Your task to perform on an android device: Open Google Chrome and click the shortcut for Amazon.com Image 0: 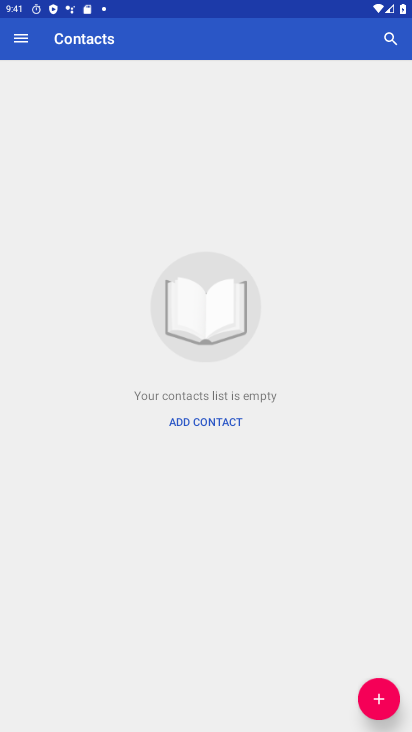
Step 0: drag from (360, 727) to (223, 308)
Your task to perform on an android device: Open Google Chrome and click the shortcut for Amazon.com Image 1: 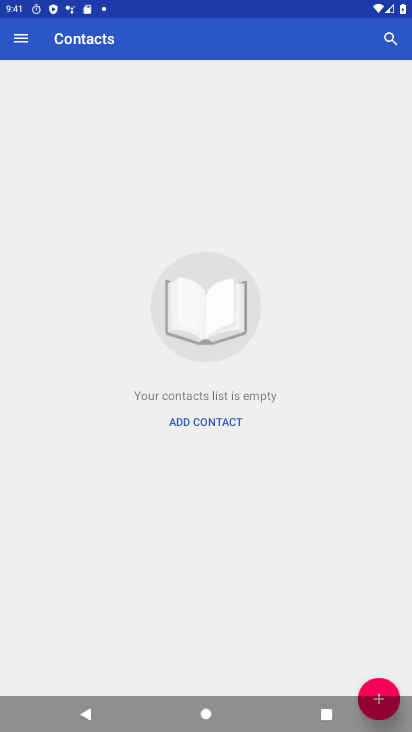
Step 1: press back button
Your task to perform on an android device: Open Google Chrome and click the shortcut for Amazon.com Image 2: 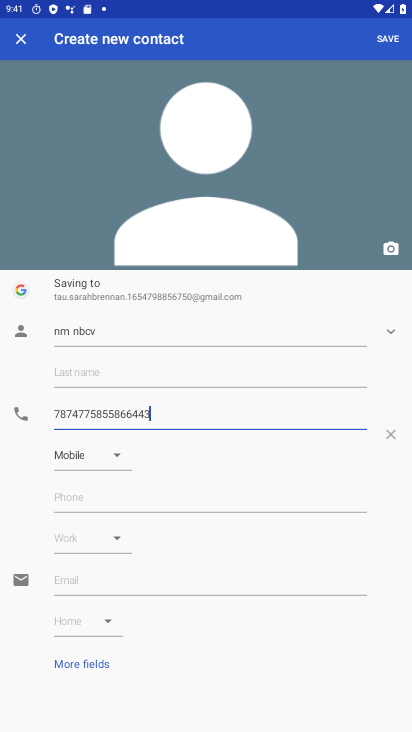
Step 2: press home button
Your task to perform on an android device: Open Google Chrome and click the shortcut for Amazon.com Image 3: 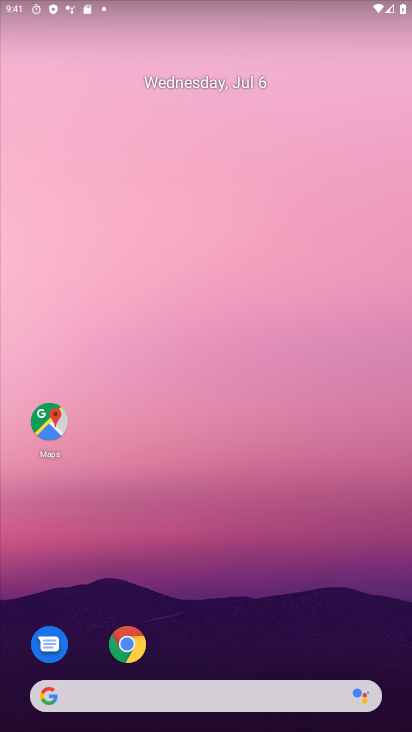
Step 3: click (213, 53)
Your task to perform on an android device: Open Google Chrome and click the shortcut for Amazon.com Image 4: 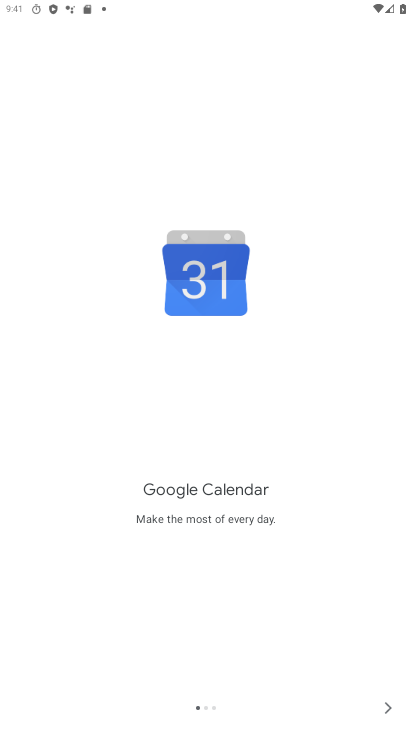
Step 4: press back button
Your task to perform on an android device: Open Google Chrome and click the shortcut for Amazon.com Image 5: 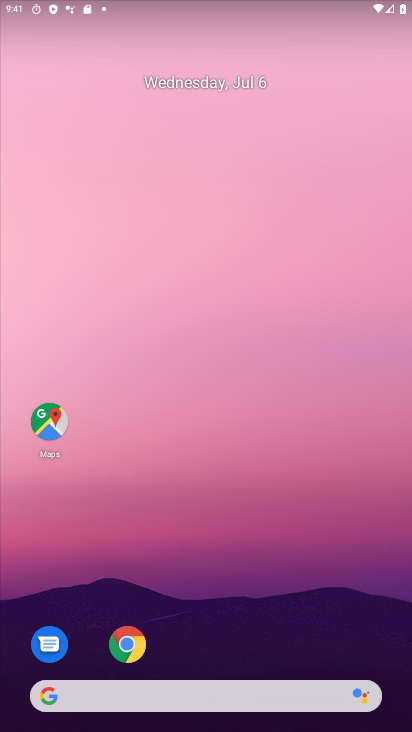
Step 5: drag from (257, 700) to (141, 153)
Your task to perform on an android device: Open Google Chrome and click the shortcut for Amazon.com Image 6: 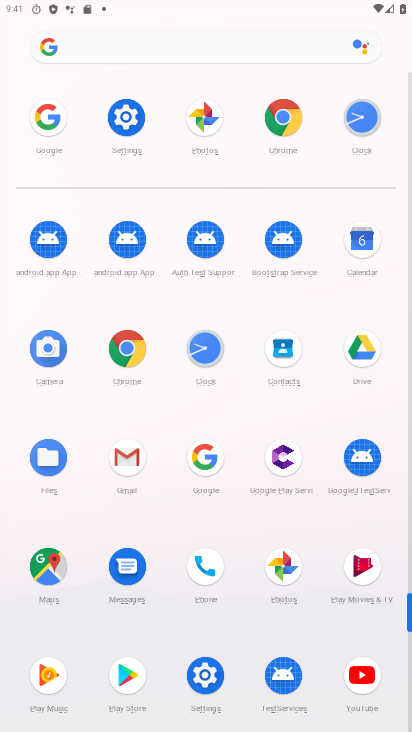
Step 6: click (122, 347)
Your task to perform on an android device: Open Google Chrome and click the shortcut for Amazon.com Image 7: 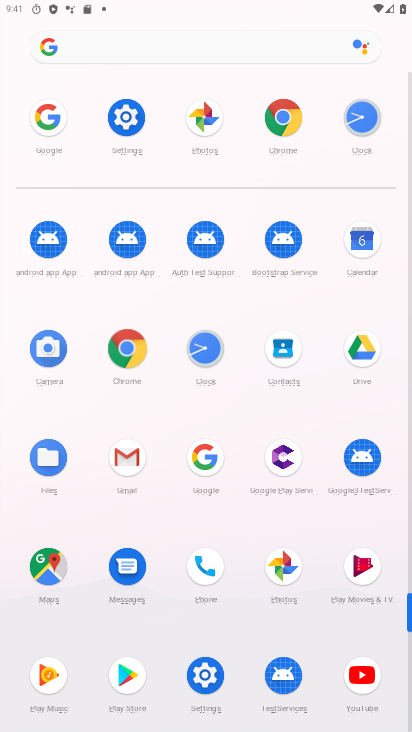
Step 7: click (123, 345)
Your task to perform on an android device: Open Google Chrome and click the shortcut for Amazon.com Image 8: 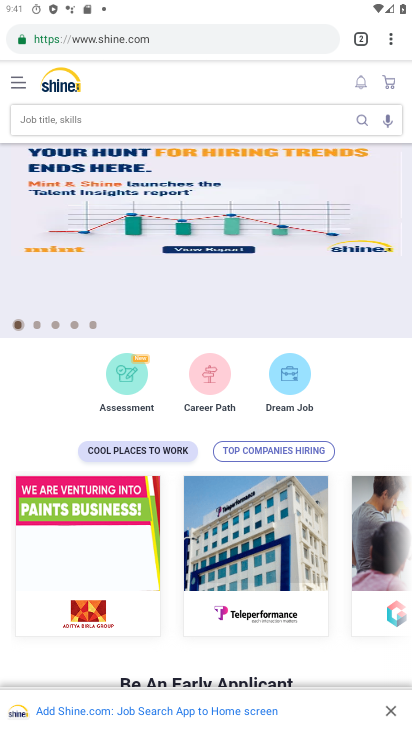
Step 8: drag from (386, 44) to (155, 71)
Your task to perform on an android device: Open Google Chrome and click the shortcut for Amazon.com Image 9: 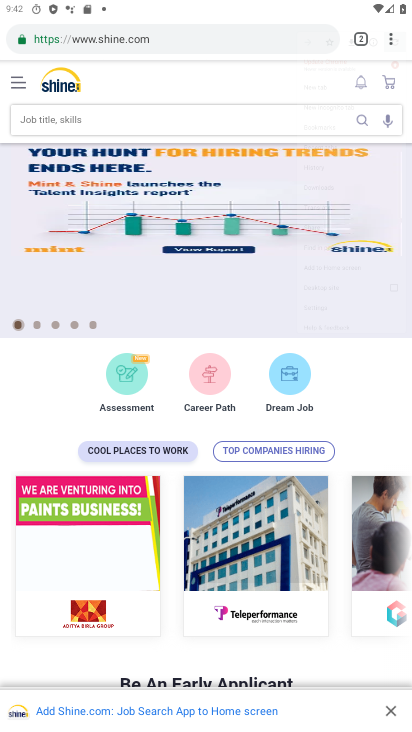
Step 9: click (156, 80)
Your task to perform on an android device: Open Google Chrome and click the shortcut for Amazon.com Image 10: 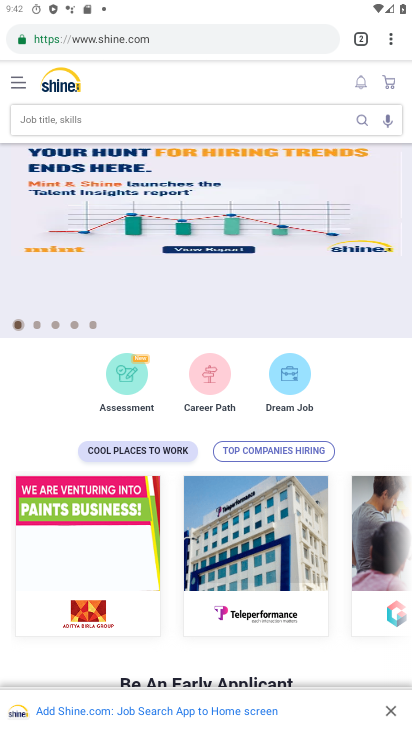
Step 10: click (160, 81)
Your task to perform on an android device: Open Google Chrome and click the shortcut for Amazon.com Image 11: 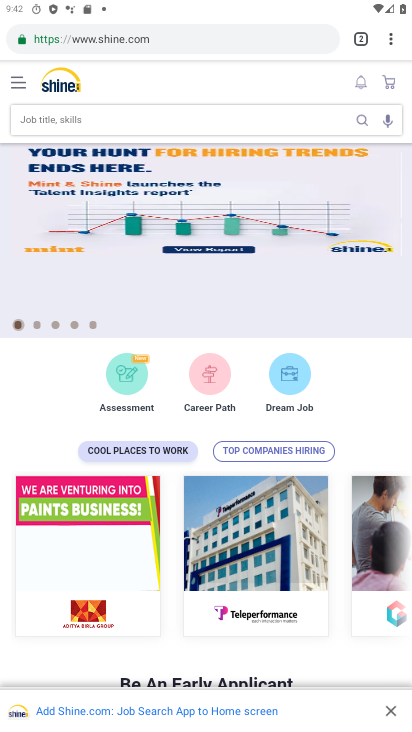
Step 11: press back button
Your task to perform on an android device: Open Google Chrome and click the shortcut for Amazon.com Image 12: 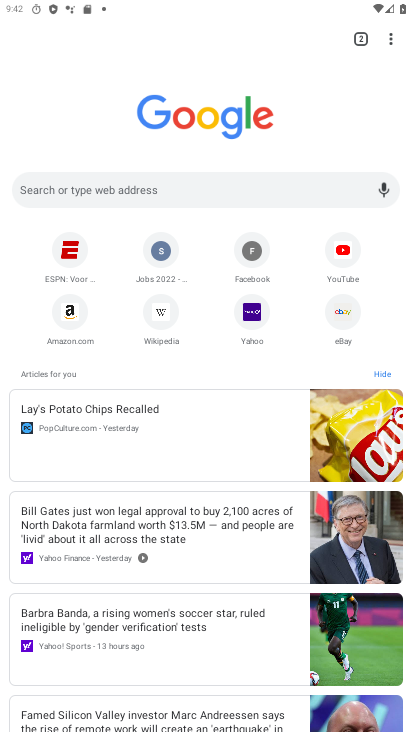
Step 12: click (72, 311)
Your task to perform on an android device: Open Google Chrome and click the shortcut for Amazon.com Image 13: 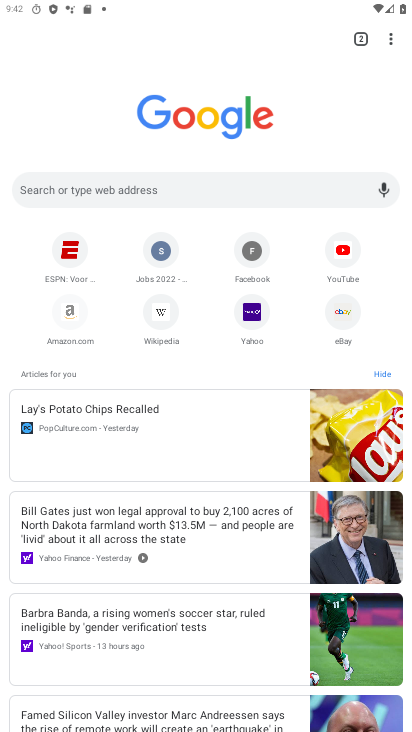
Step 13: click (72, 311)
Your task to perform on an android device: Open Google Chrome and click the shortcut for Amazon.com Image 14: 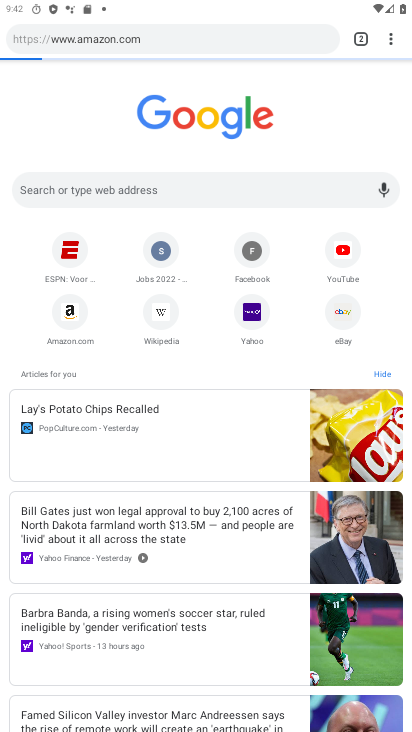
Step 14: click (73, 311)
Your task to perform on an android device: Open Google Chrome and click the shortcut for Amazon.com Image 15: 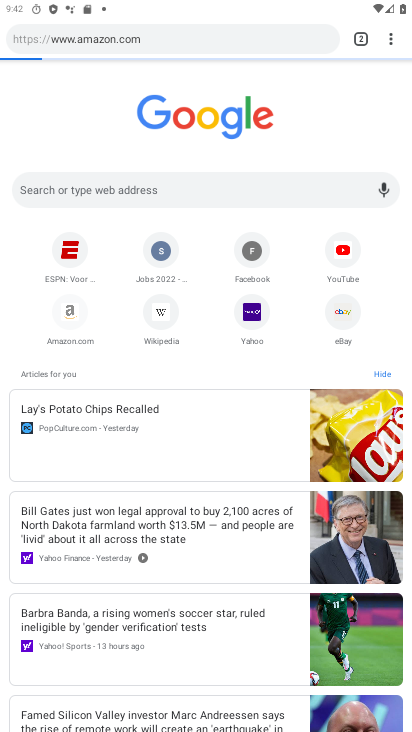
Step 15: click (73, 297)
Your task to perform on an android device: Open Google Chrome and click the shortcut for Amazon.com Image 16: 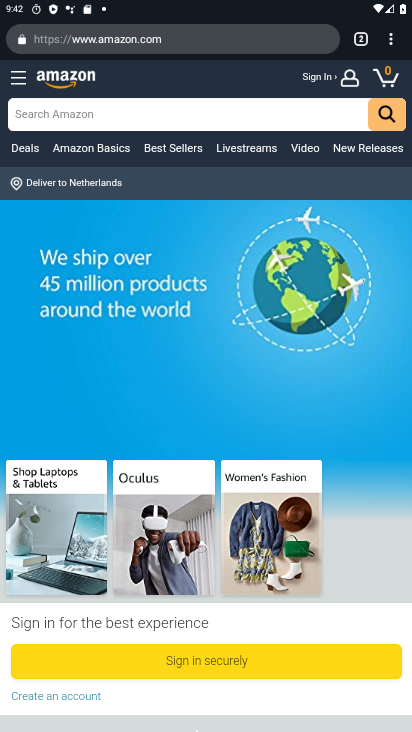
Step 16: task complete